Your task to perform on an android device: create a new album in the google photos Image 0: 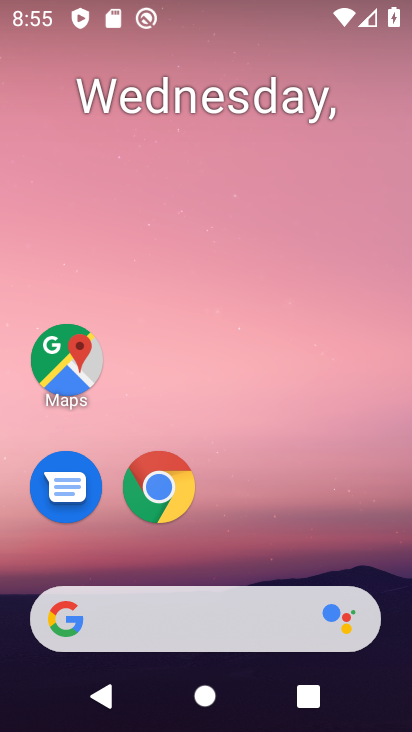
Step 0: drag from (293, 524) to (356, 20)
Your task to perform on an android device: create a new album in the google photos Image 1: 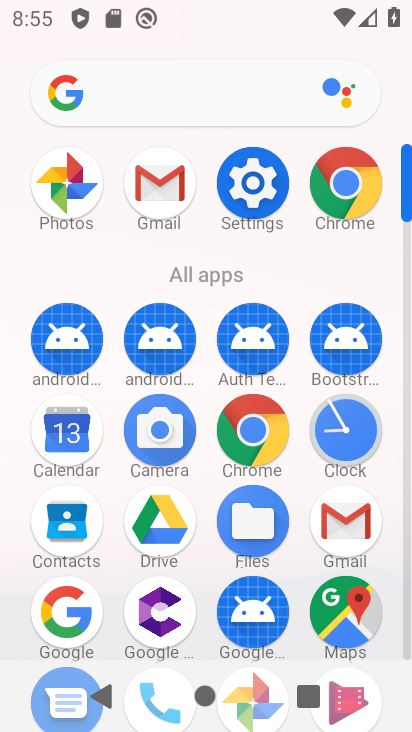
Step 1: drag from (227, 625) to (295, 188)
Your task to perform on an android device: create a new album in the google photos Image 2: 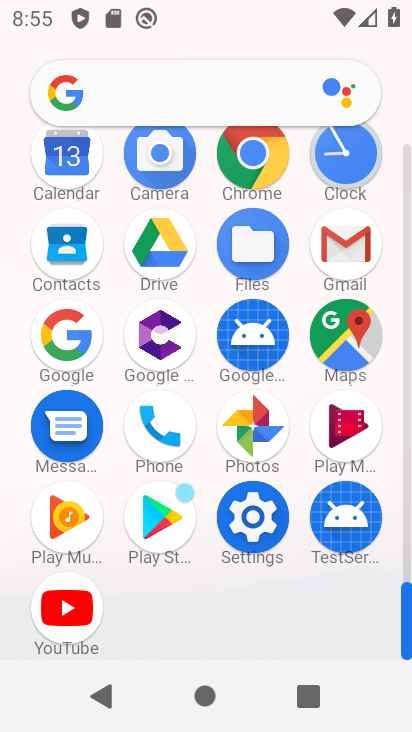
Step 2: click (262, 442)
Your task to perform on an android device: create a new album in the google photos Image 3: 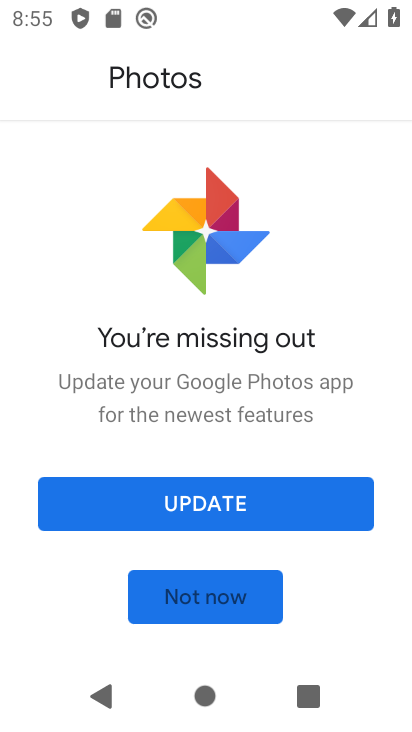
Step 3: click (181, 602)
Your task to perform on an android device: create a new album in the google photos Image 4: 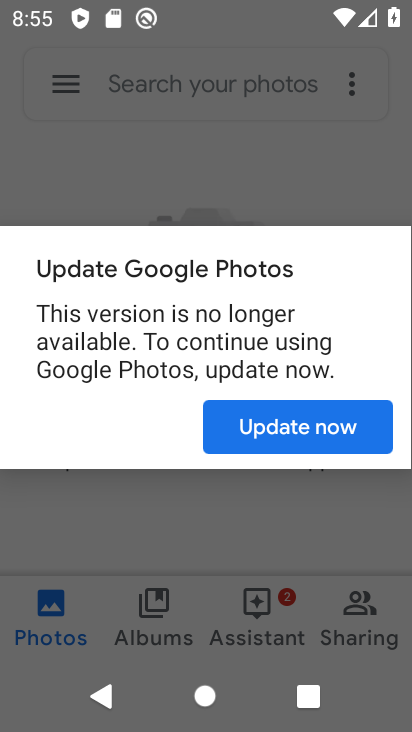
Step 4: click (337, 422)
Your task to perform on an android device: create a new album in the google photos Image 5: 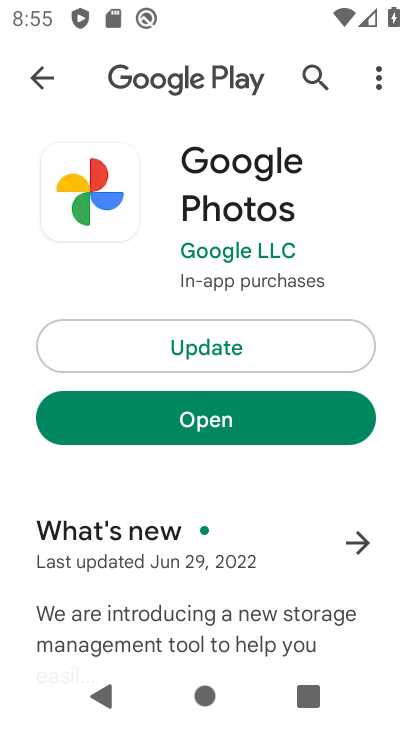
Step 5: click (230, 428)
Your task to perform on an android device: create a new album in the google photos Image 6: 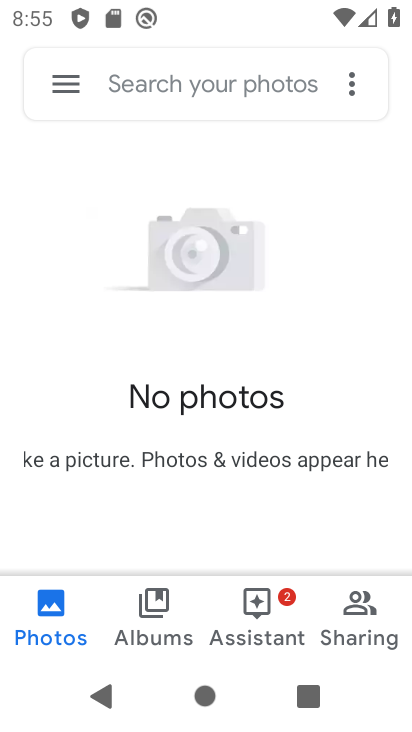
Step 6: click (138, 608)
Your task to perform on an android device: create a new album in the google photos Image 7: 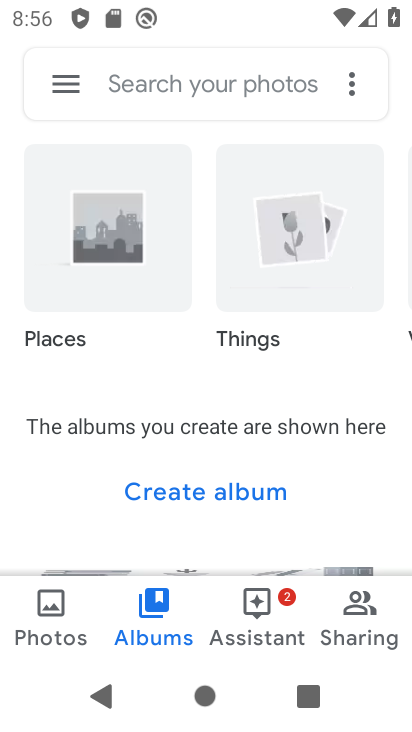
Step 7: click (60, 613)
Your task to perform on an android device: create a new album in the google photos Image 8: 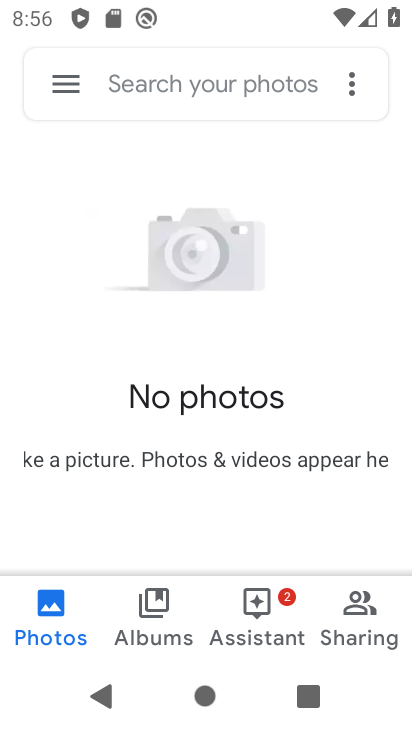
Step 8: click (62, 631)
Your task to perform on an android device: create a new album in the google photos Image 9: 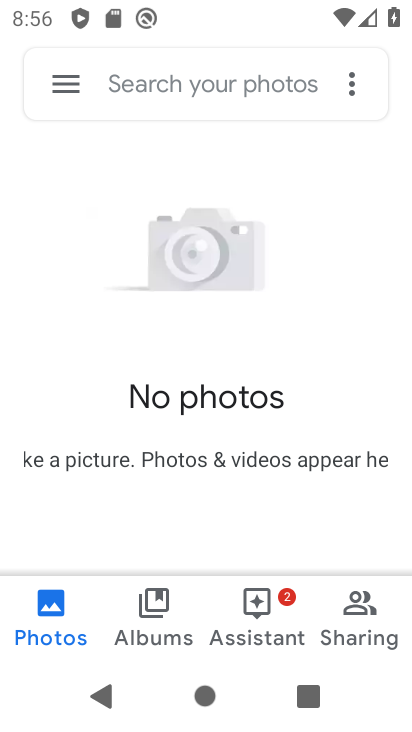
Step 9: click (151, 592)
Your task to perform on an android device: create a new album in the google photos Image 10: 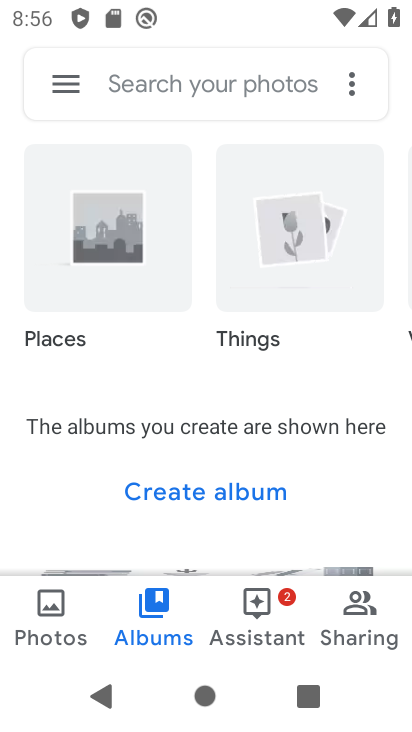
Step 10: click (193, 493)
Your task to perform on an android device: create a new album in the google photos Image 11: 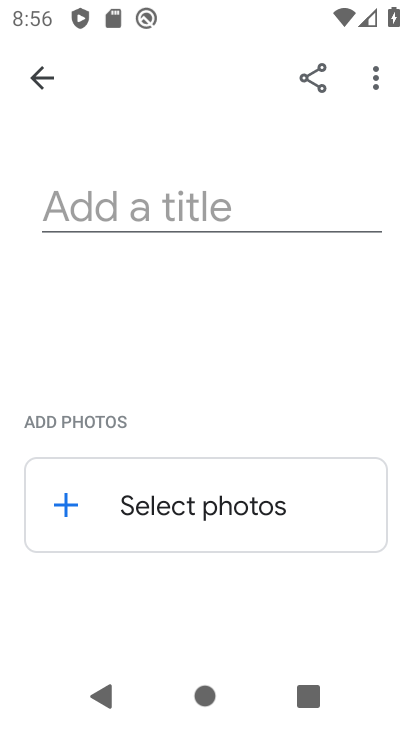
Step 11: click (165, 215)
Your task to perform on an android device: create a new album in the google photos Image 12: 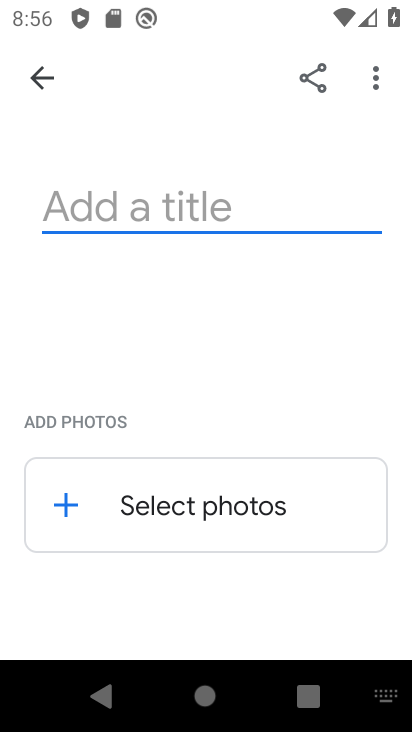
Step 12: type "bgfg"
Your task to perform on an android device: create a new album in the google photos Image 13: 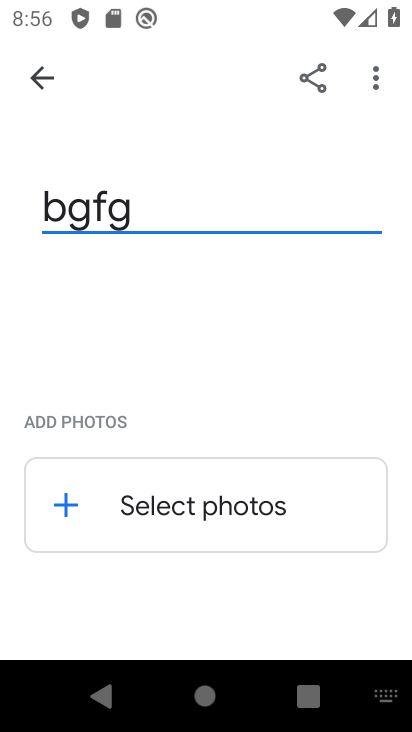
Step 13: click (170, 461)
Your task to perform on an android device: create a new album in the google photos Image 14: 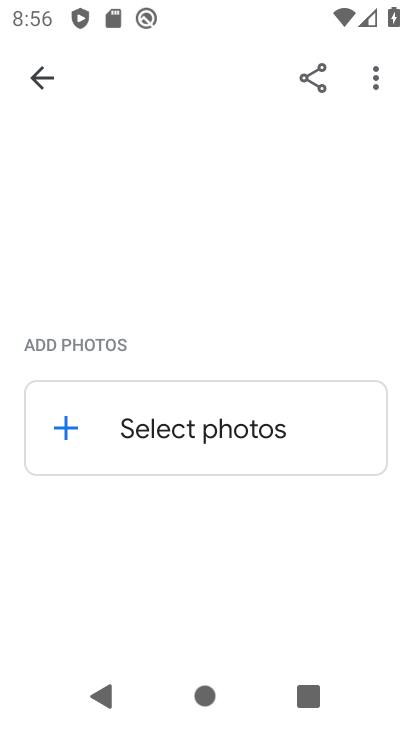
Step 14: click (152, 419)
Your task to perform on an android device: create a new album in the google photos Image 15: 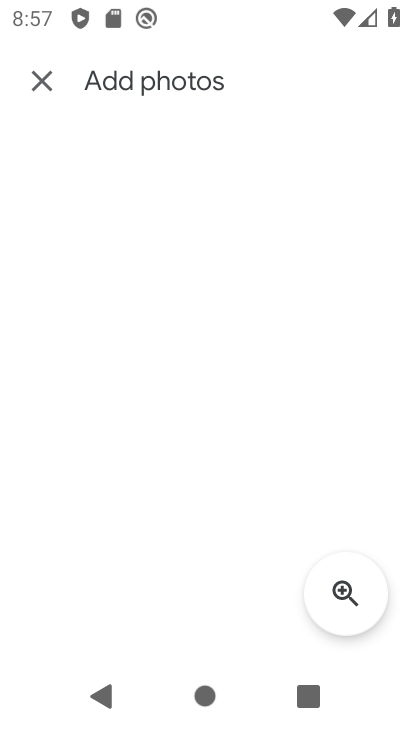
Step 15: task complete